Your task to perform on an android device: What's on the menu at Panera? Image 0: 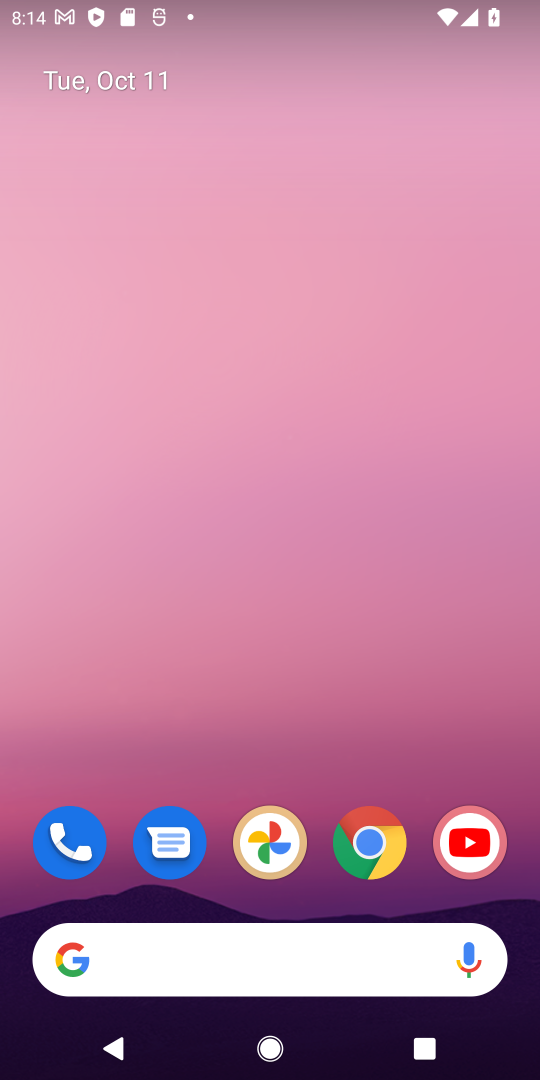
Step 0: click (370, 836)
Your task to perform on an android device: What's on the menu at Panera? Image 1: 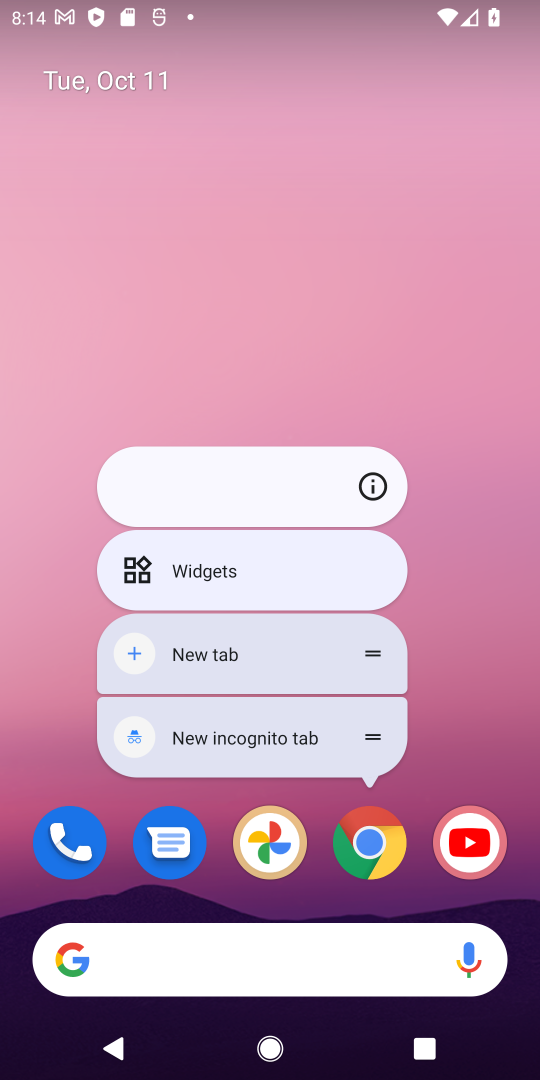
Step 1: click (371, 851)
Your task to perform on an android device: What's on the menu at Panera? Image 2: 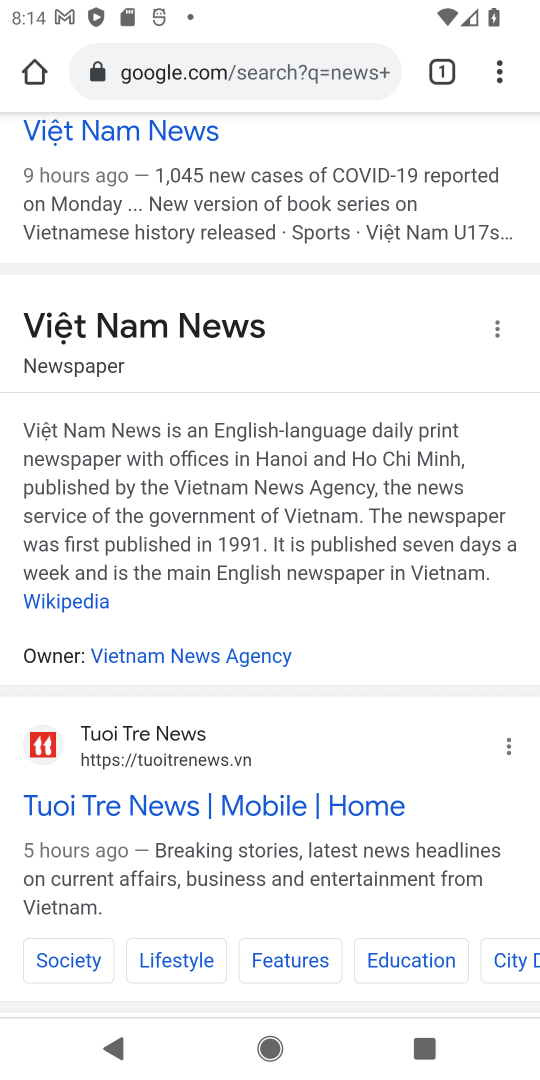
Step 2: click (215, 65)
Your task to perform on an android device: What's on the menu at Panera? Image 3: 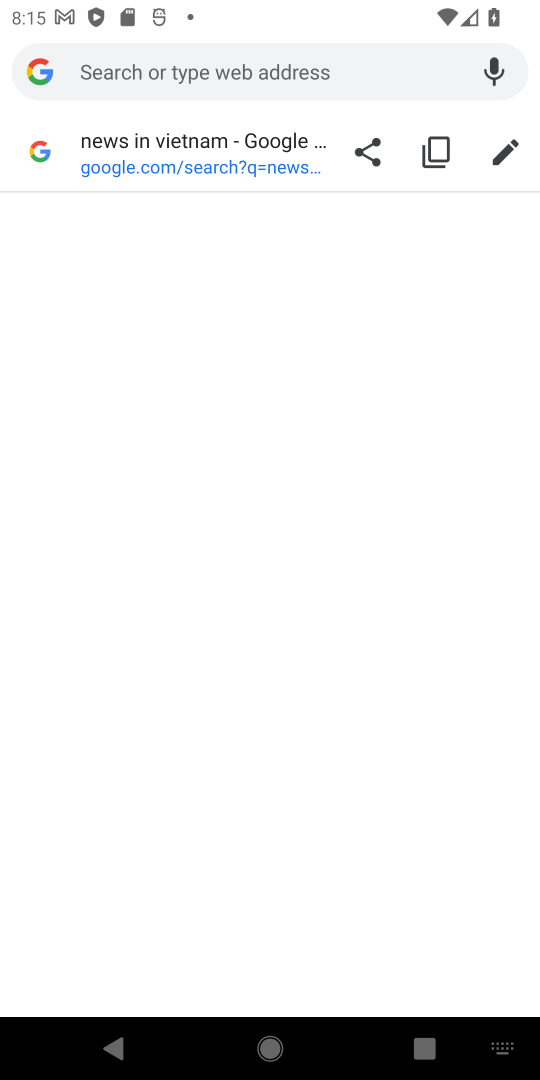
Step 3: type "menu at panera"
Your task to perform on an android device: What's on the menu at Panera? Image 4: 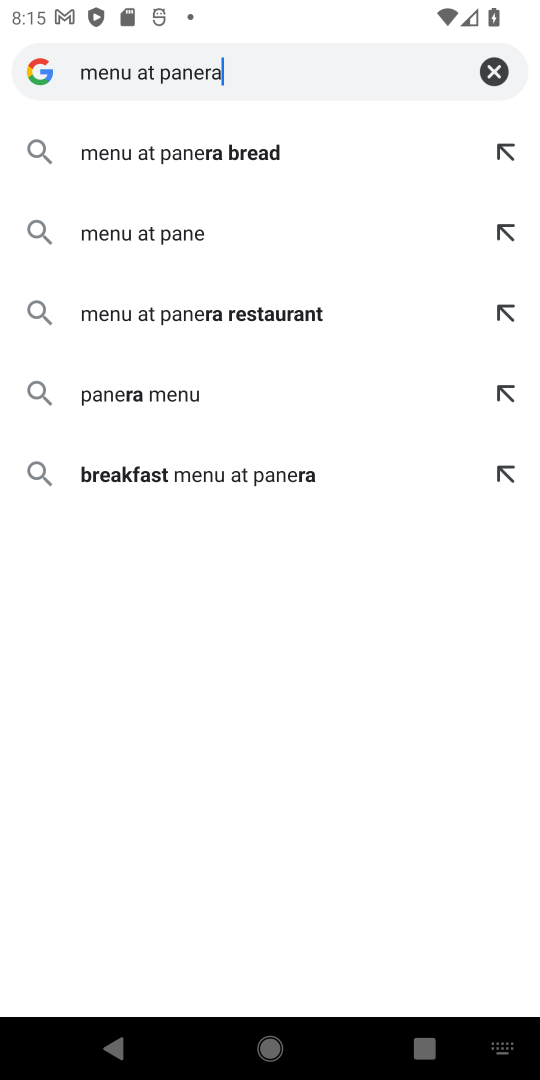
Step 4: type ""
Your task to perform on an android device: What's on the menu at Panera? Image 5: 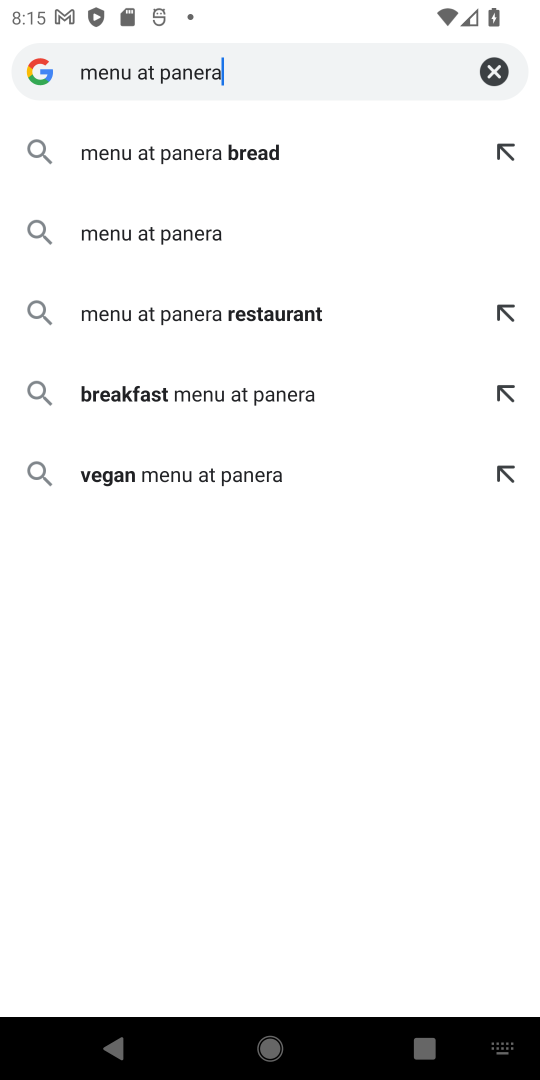
Step 5: click (175, 222)
Your task to perform on an android device: What's on the menu at Panera? Image 6: 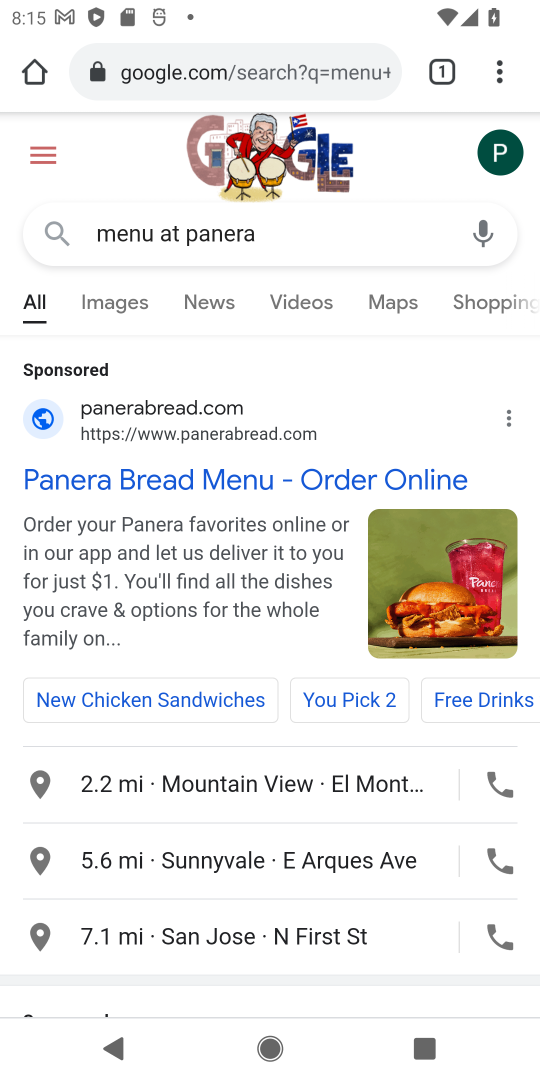
Step 6: drag from (100, 664) to (94, 366)
Your task to perform on an android device: What's on the menu at Panera? Image 7: 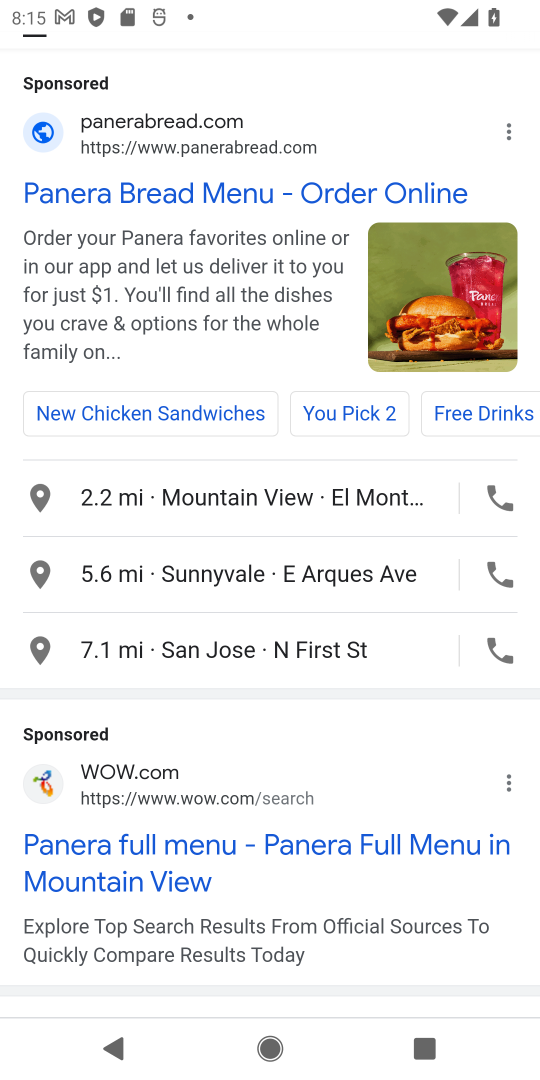
Step 7: drag from (212, 815) to (206, 491)
Your task to perform on an android device: What's on the menu at Panera? Image 8: 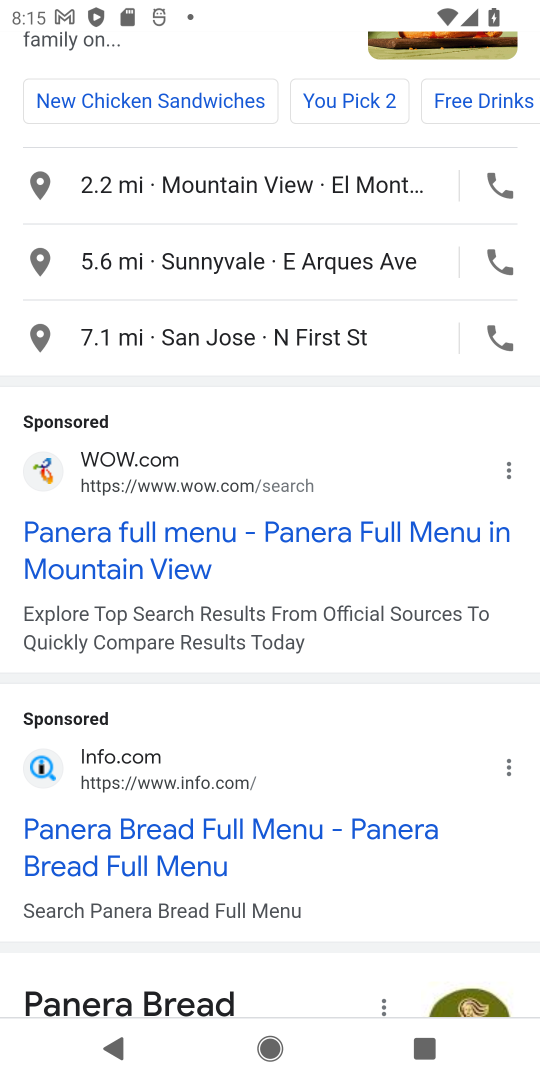
Step 8: click (148, 530)
Your task to perform on an android device: What's on the menu at Panera? Image 9: 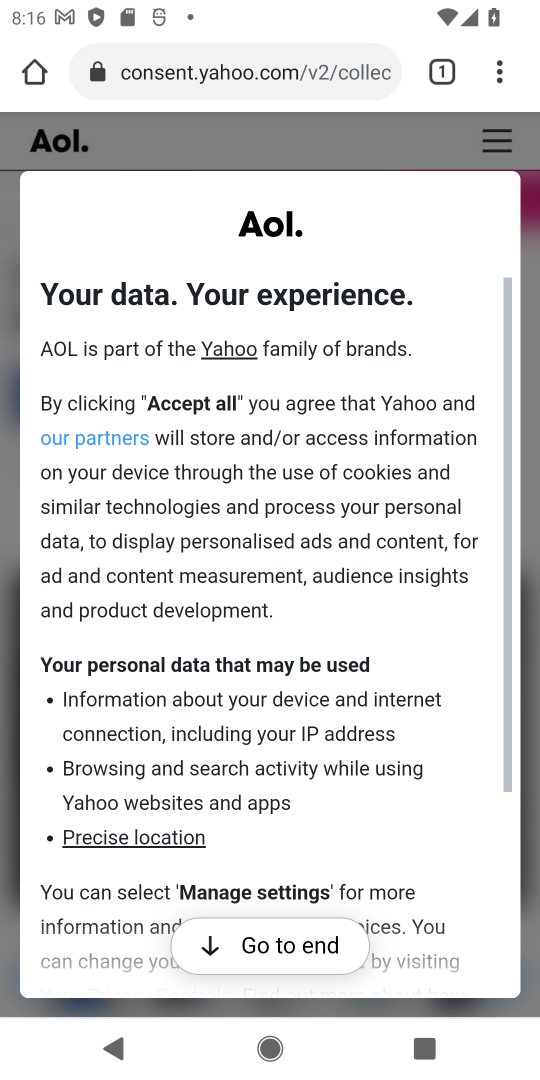
Step 9: drag from (215, 733) to (262, 337)
Your task to perform on an android device: What's on the menu at Panera? Image 10: 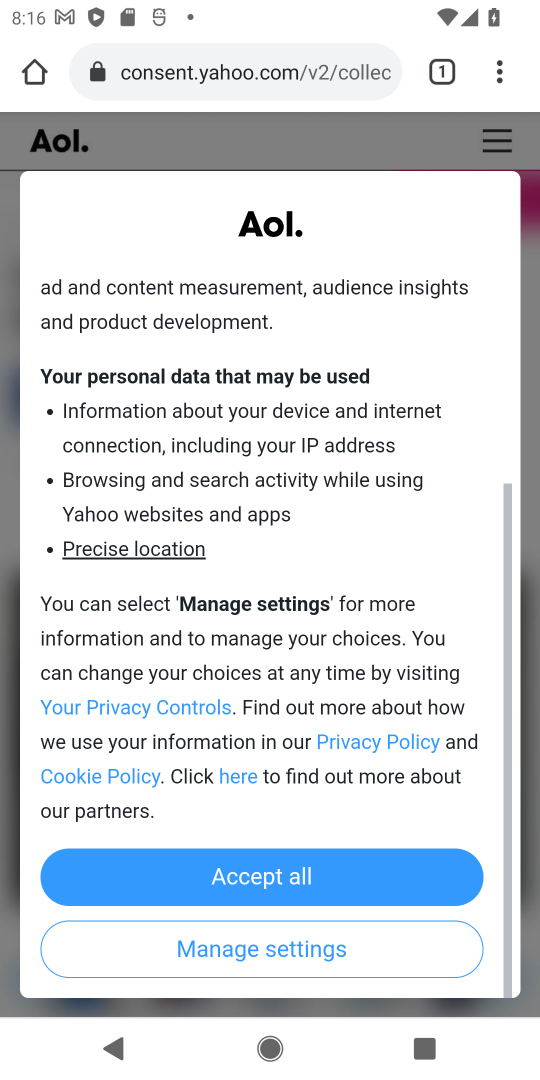
Step 10: click (182, 889)
Your task to perform on an android device: What's on the menu at Panera? Image 11: 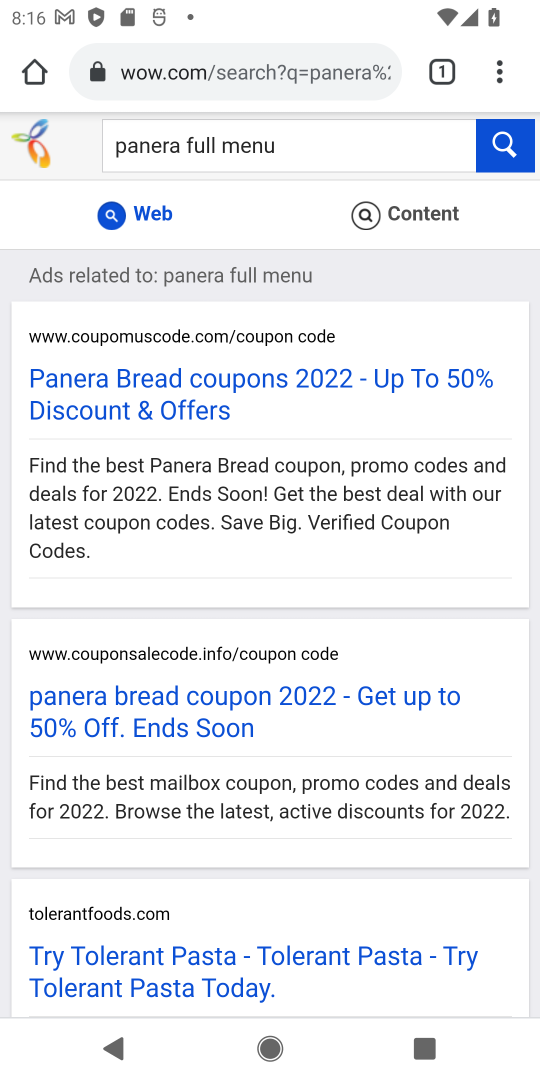
Step 11: drag from (82, 880) to (153, 416)
Your task to perform on an android device: What's on the menu at Panera? Image 12: 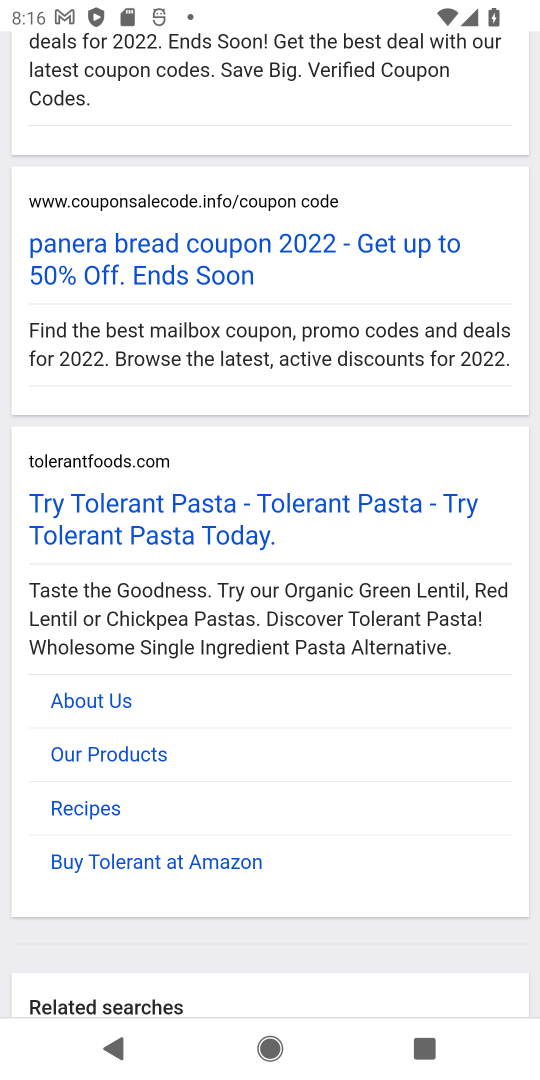
Step 12: drag from (90, 689) to (88, 376)
Your task to perform on an android device: What's on the menu at Panera? Image 13: 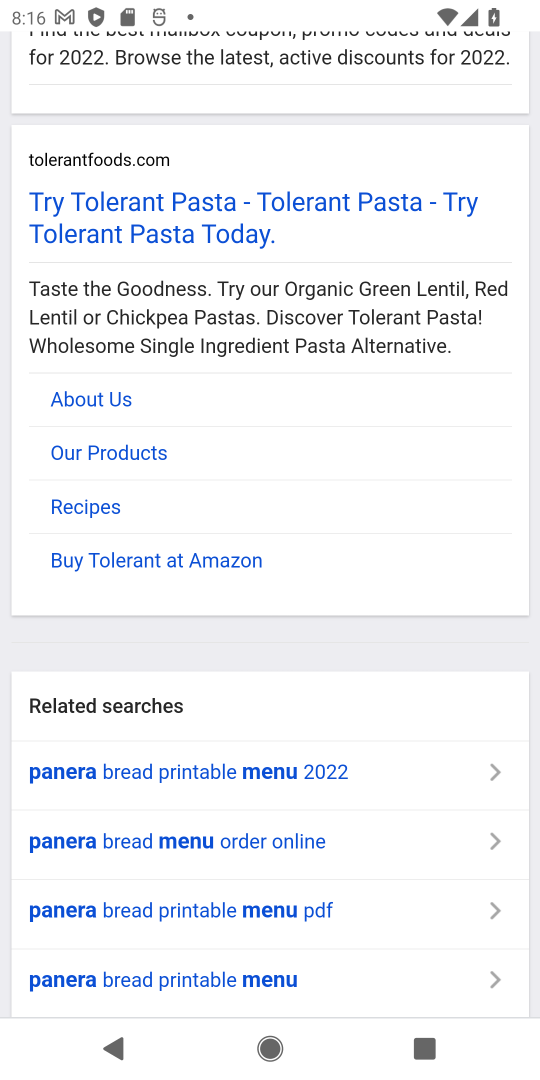
Step 13: click (70, 501)
Your task to perform on an android device: What's on the menu at Panera? Image 14: 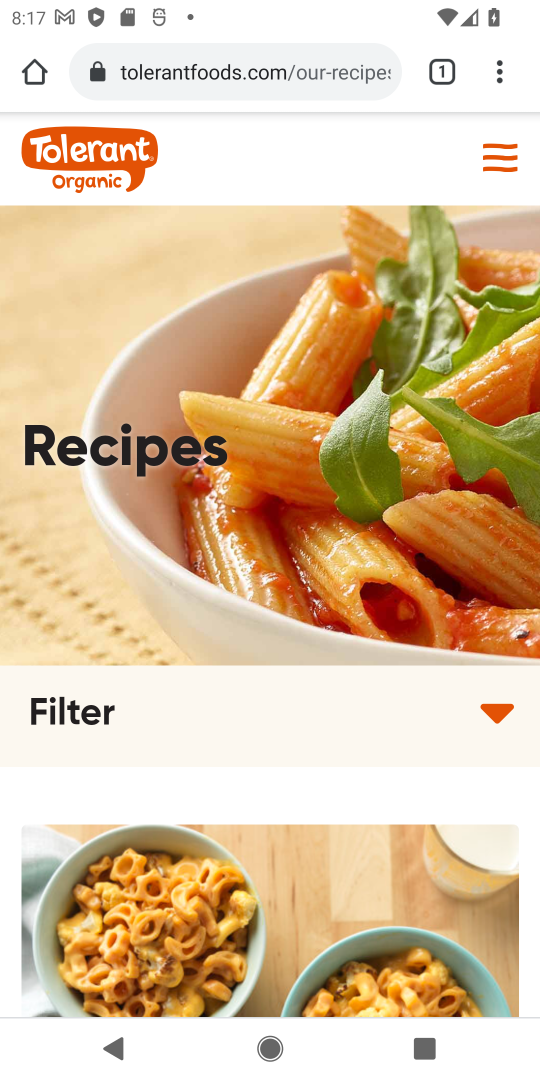
Step 14: task complete